Your task to perform on an android device: allow cookies in the chrome app Image 0: 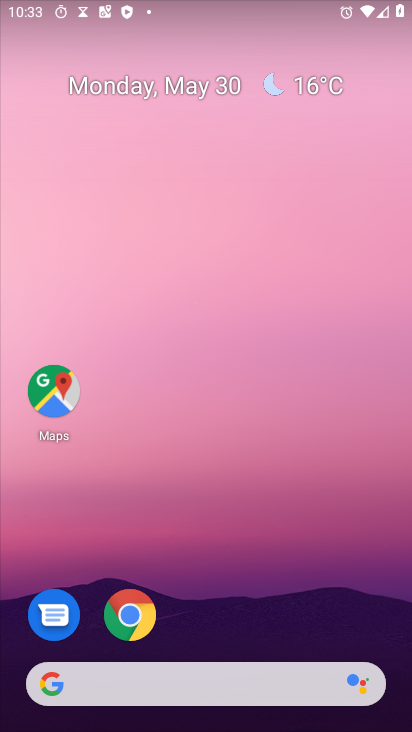
Step 0: drag from (335, 557) to (290, 45)
Your task to perform on an android device: allow cookies in the chrome app Image 1: 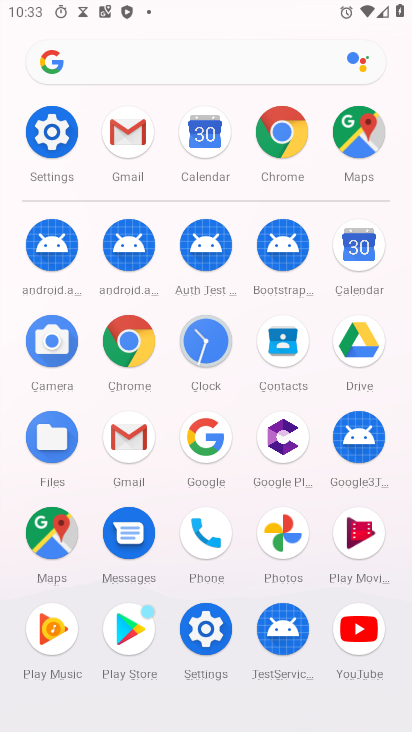
Step 1: click (280, 157)
Your task to perform on an android device: allow cookies in the chrome app Image 2: 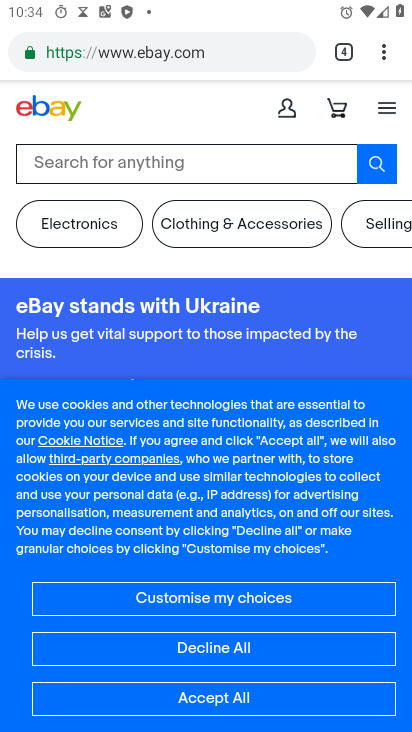
Step 2: drag from (388, 53) to (241, 636)
Your task to perform on an android device: allow cookies in the chrome app Image 3: 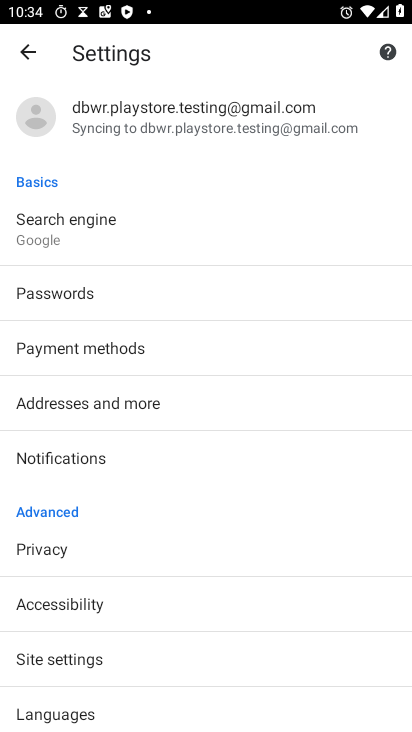
Step 3: drag from (170, 625) to (225, 246)
Your task to perform on an android device: allow cookies in the chrome app Image 4: 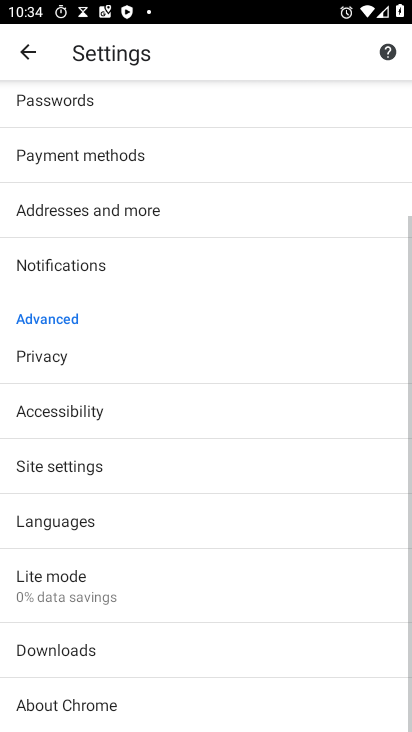
Step 4: click (79, 472)
Your task to perform on an android device: allow cookies in the chrome app Image 5: 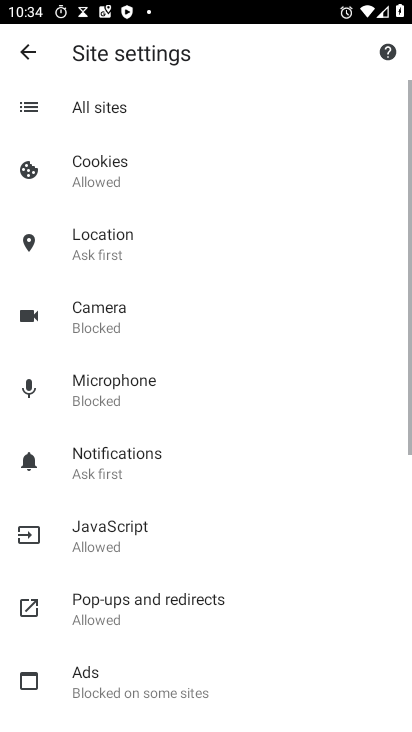
Step 5: click (110, 168)
Your task to perform on an android device: allow cookies in the chrome app Image 6: 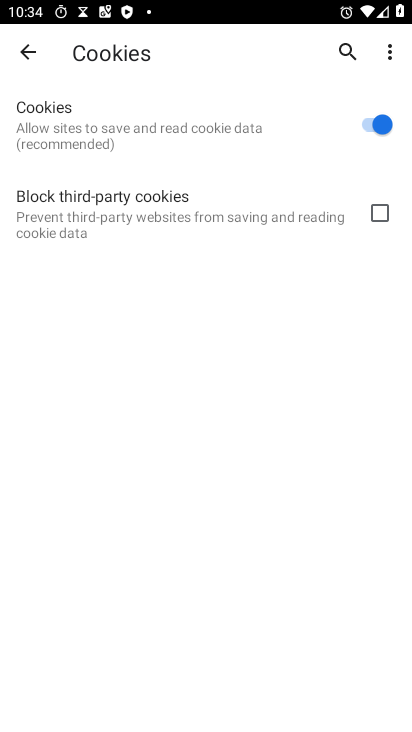
Step 6: task complete